Your task to perform on an android device: What's the weather going to be this weekend? Image 0: 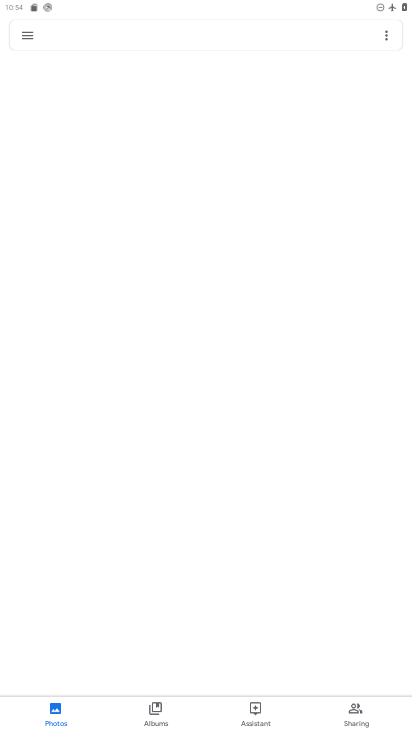
Step 0: drag from (244, 598) to (224, 110)
Your task to perform on an android device: What's the weather going to be this weekend? Image 1: 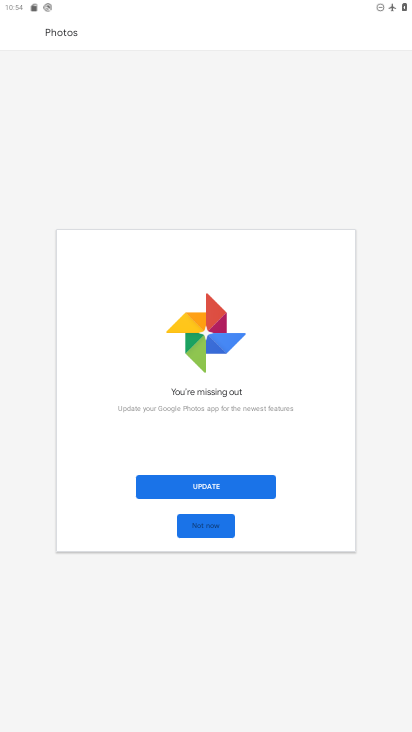
Step 1: press home button
Your task to perform on an android device: What's the weather going to be this weekend? Image 2: 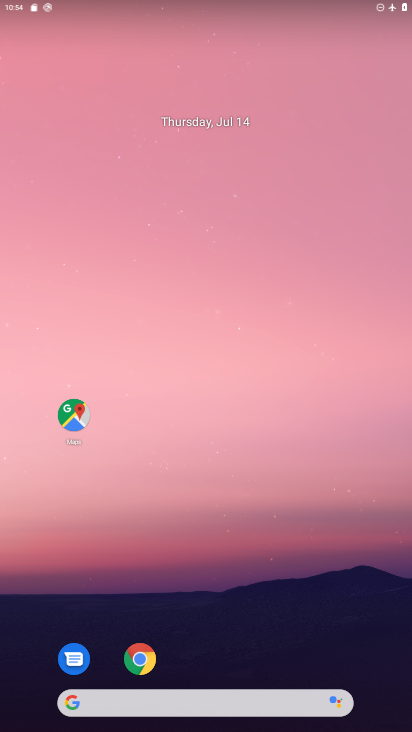
Step 2: drag from (358, 624) to (267, 144)
Your task to perform on an android device: What's the weather going to be this weekend? Image 3: 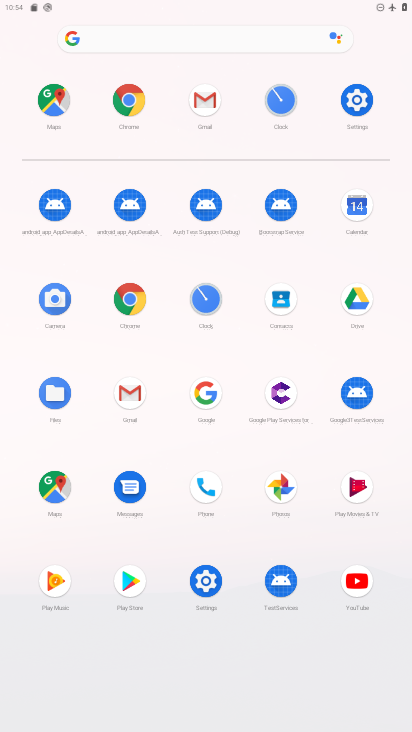
Step 3: click (124, 301)
Your task to perform on an android device: What's the weather going to be this weekend? Image 4: 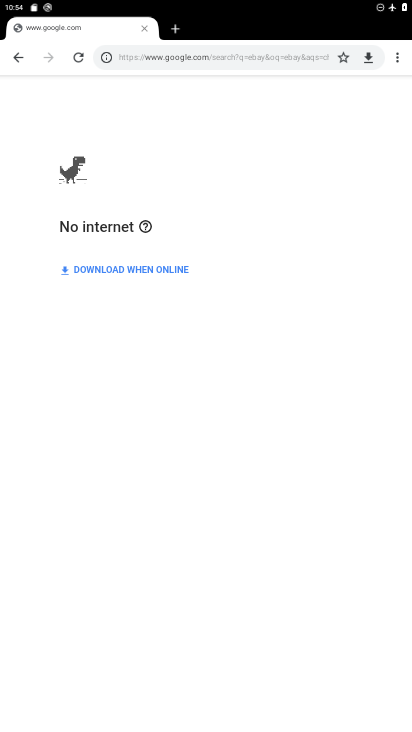
Step 4: click (218, 55)
Your task to perform on an android device: What's the weather going to be this weekend? Image 5: 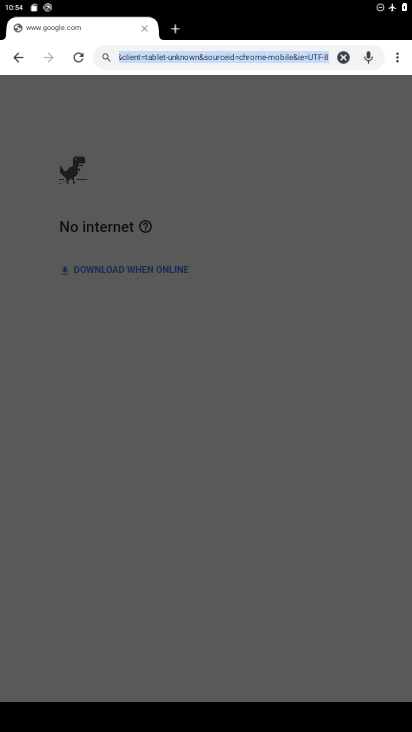
Step 5: type "weather"
Your task to perform on an android device: What's the weather going to be this weekend? Image 6: 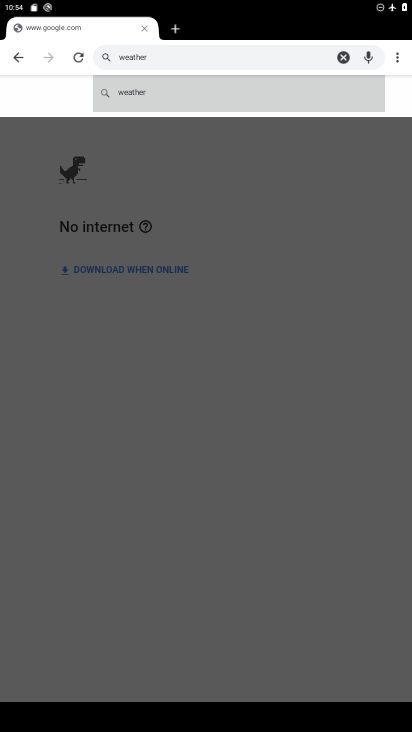
Step 6: click (128, 93)
Your task to perform on an android device: What's the weather going to be this weekend? Image 7: 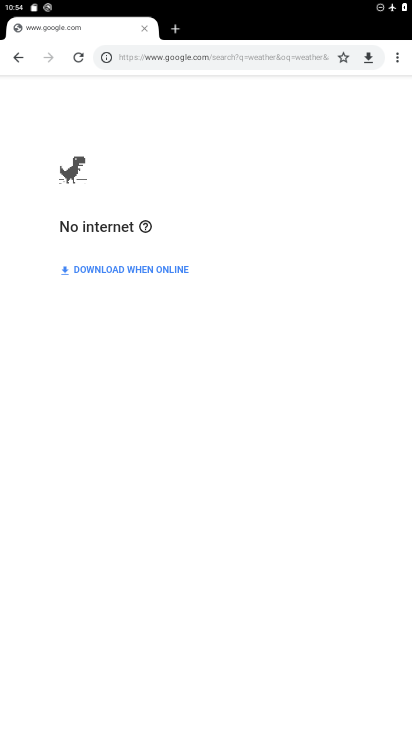
Step 7: task complete